Your task to perform on an android device: delete browsing data in the chrome app Image 0: 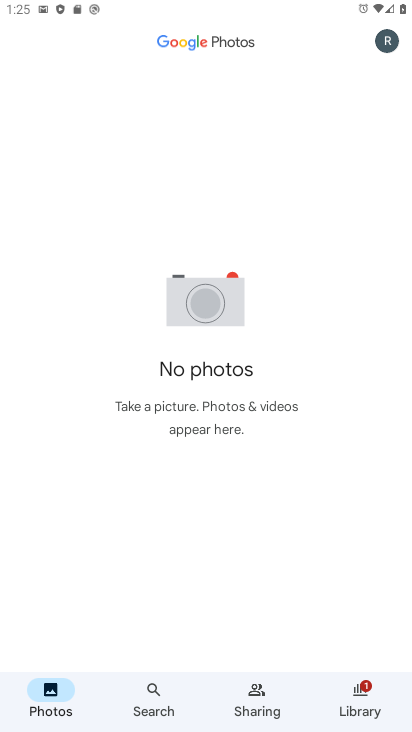
Step 0: press home button
Your task to perform on an android device: delete browsing data in the chrome app Image 1: 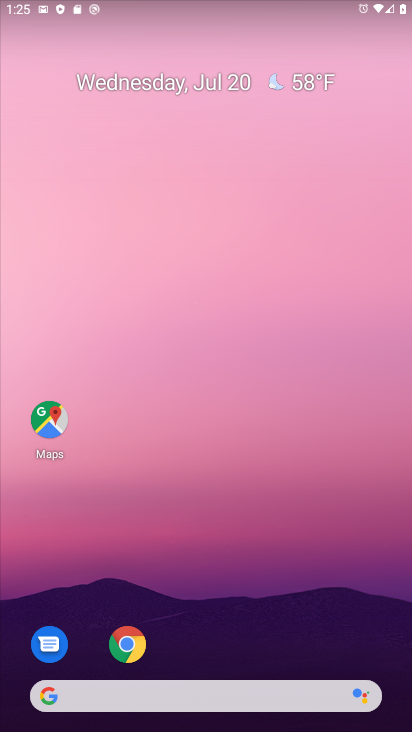
Step 1: click (129, 641)
Your task to perform on an android device: delete browsing data in the chrome app Image 2: 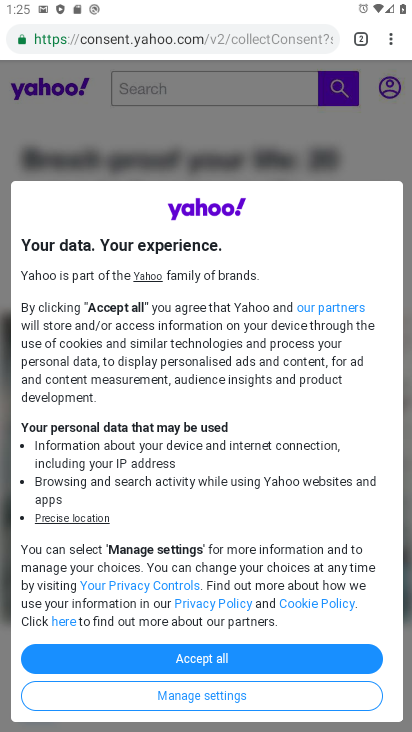
Step 2: click (383, 40)
Your task to perform on an android device: delete browsing data in the chrome app Image 3: 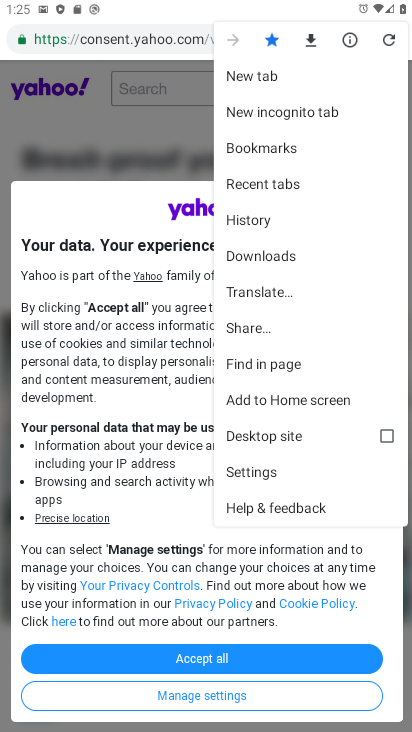
Step 3: click (285, 469)
Your task to perform on an android device: delete browsing data in the chrome app Image 4: 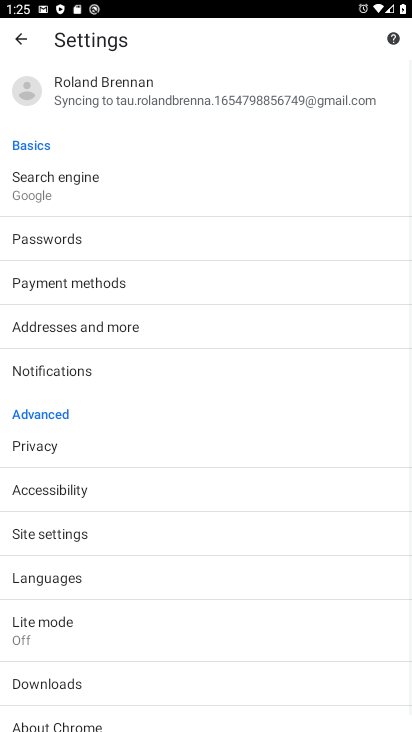
Step 4: click (47, 434)
Your task to perform on an android device: delete browsing data in the chrome app Image 5: 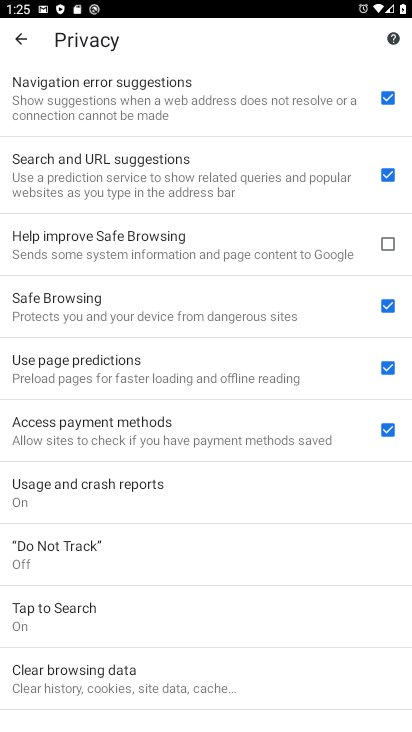
Step 5: click (119, 688)
Your task to perform on an android device: delete browsing data in the chrome app Image 6: 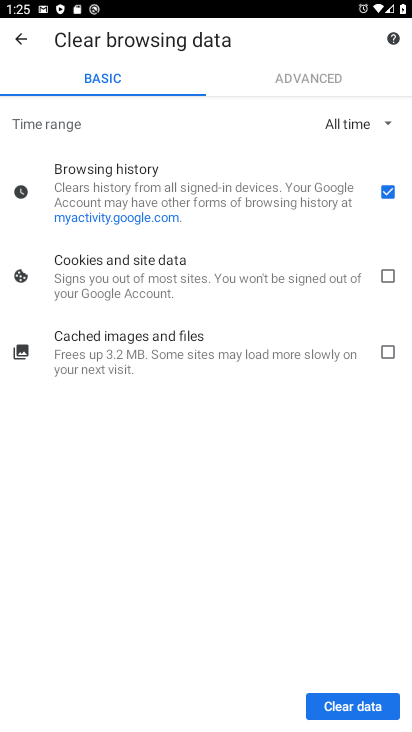
Step 6: click (383, 275)
Your task to perform on an android device: delete browsing data in the chrome app Image 7: 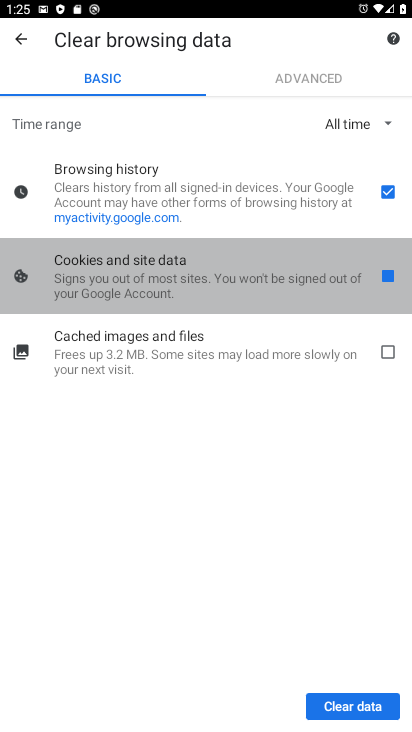
Step 7: click (389, 354)
Your task to perform on an android device: delete browsing data in the chrome app Image 8: 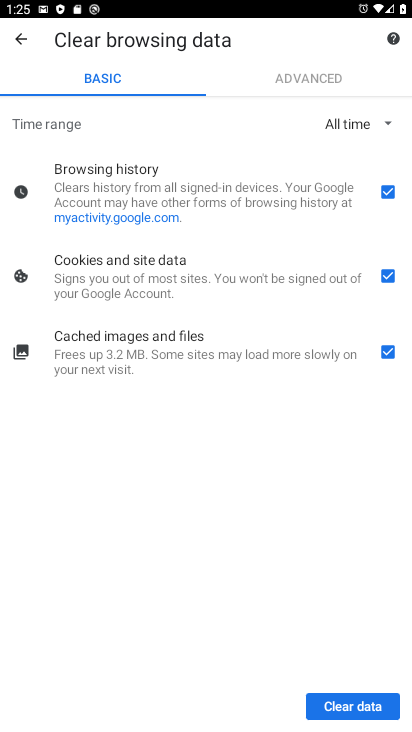
Step 8: click (370, 705)
Your task to perform on an android device: delete browsing data in the chrome app Image 9: 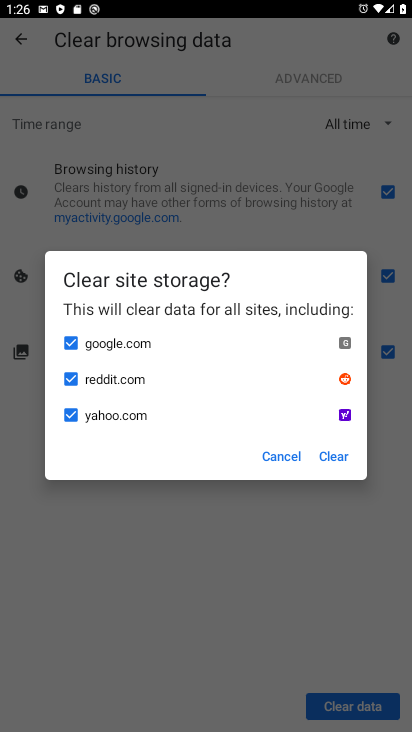
Step 9: click (338, 459)
Your task to perform on an android device: delete browsing data in the chrome app Image 10: 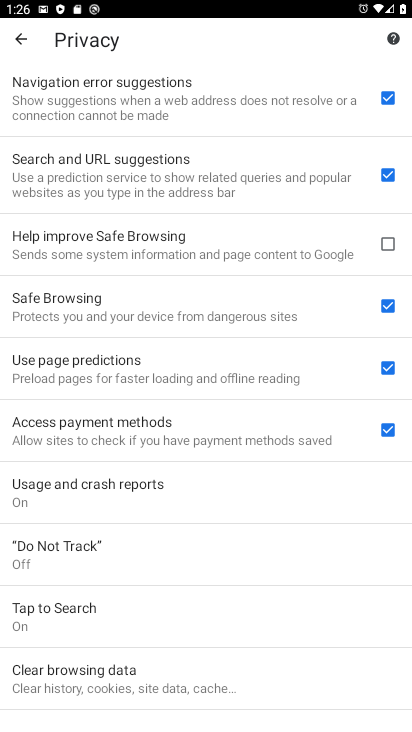
Step 10: task complete